Your task to perform on an android device: search for starred emails in the gmail app Image 0: 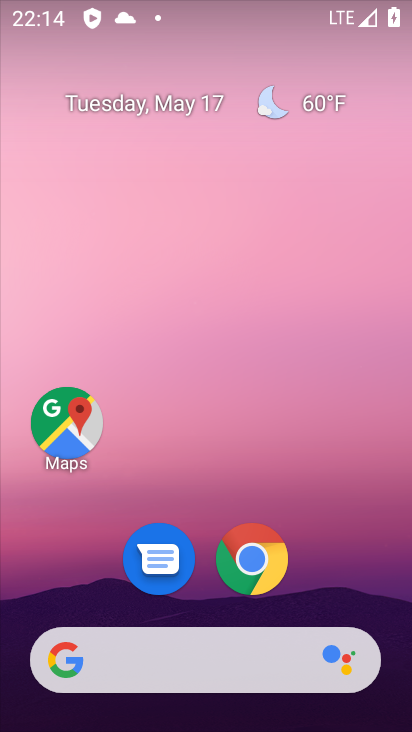
Step 0: drag from (356, 575) to (320, 72)
Your task to perform on an android device: search for starred emails in the gmail app Image 1: 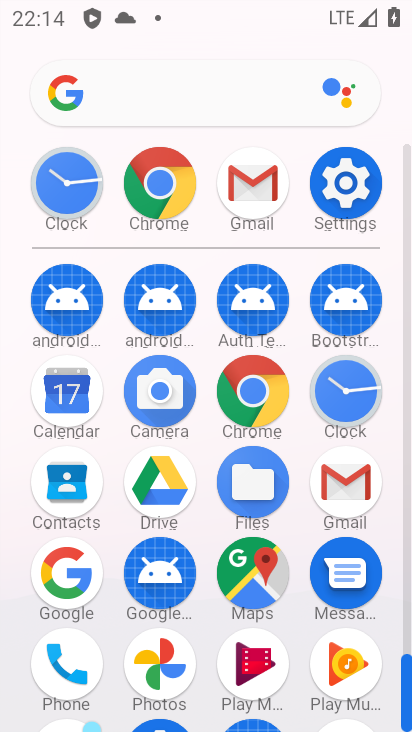
Step 1: click (257, 182)
Your task to perform on an android device: search for starred emails in the gmail app Image 2: 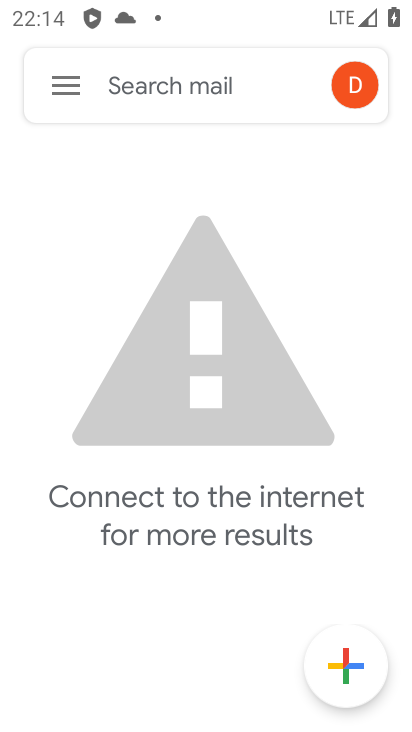
Step 2: click (66, 78)
Your task to perform on an android device: search for starred emails in the gmail app Image 3: 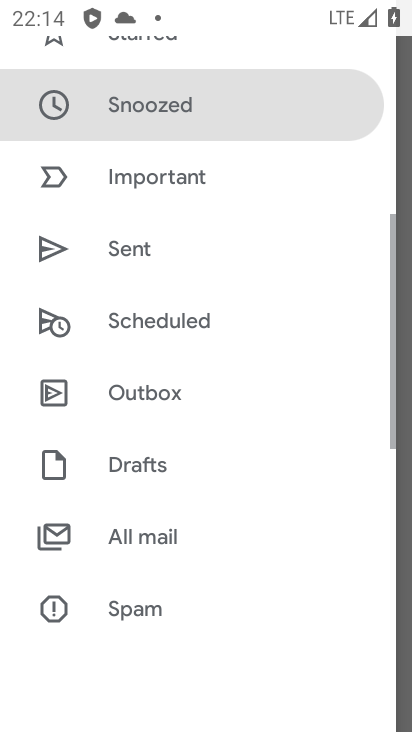
Step 3: drag from (201, 196) to (202, 608)
Your task to perform on an android device: search for starred emails in the gmail app Image 4: 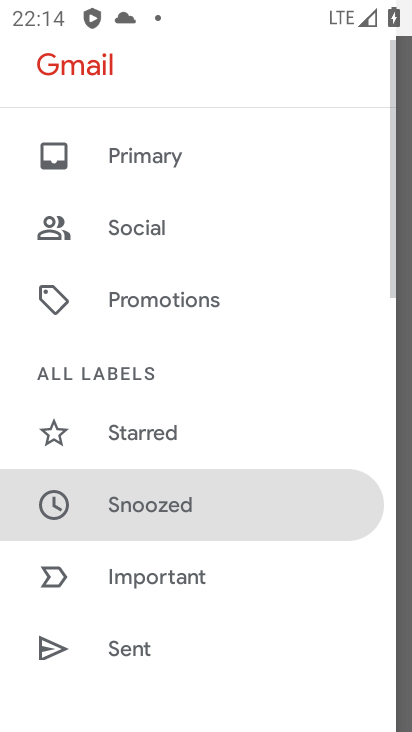
Step 4: click (160, 431)
Your task to perform on an android device: search for starred emails in the gmail app Image 5: 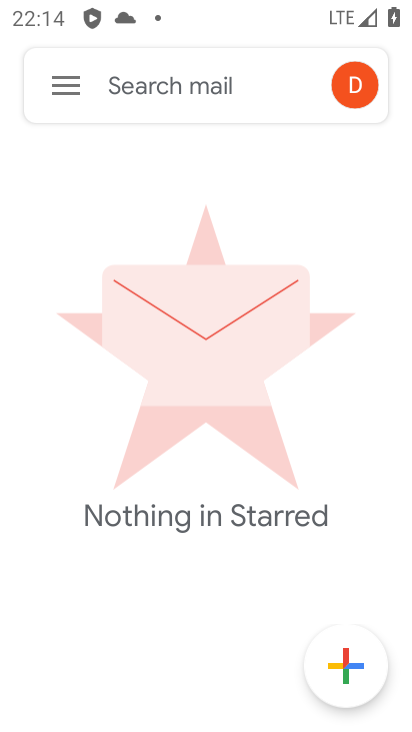
Step 5: task complete